Your task to perform on an android device: find snoozed emails in the gmail app Image 0: 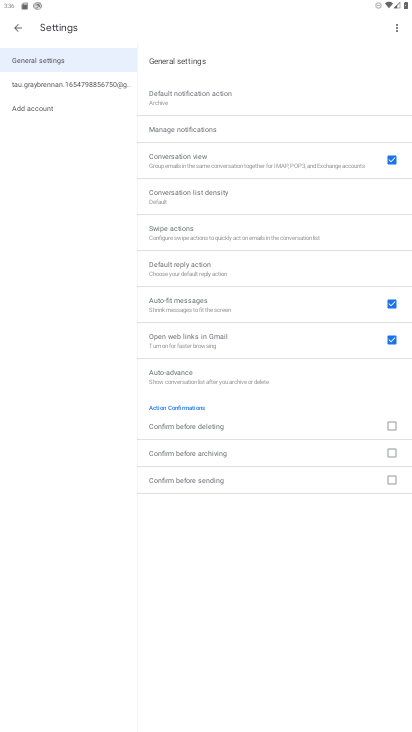
Step 0: press home button
Your task to perform on an android device: find snoozed emails in the gmail app Image 1: 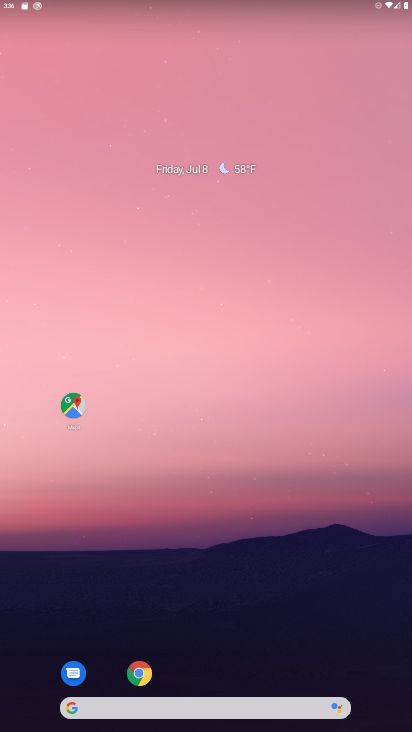
Step 1: drag from (214, 446) to (218, 331)
Your task to perform on an android device: find snoozed emails in the gmail app Image 2: 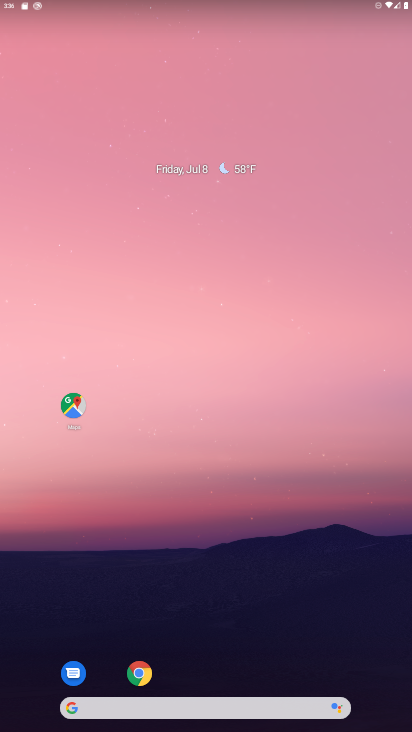
Step 2: drag from (217, 662) to (263, 240)
Your task to perform on an android device: find snoozed emails in the gmail app Image 3: 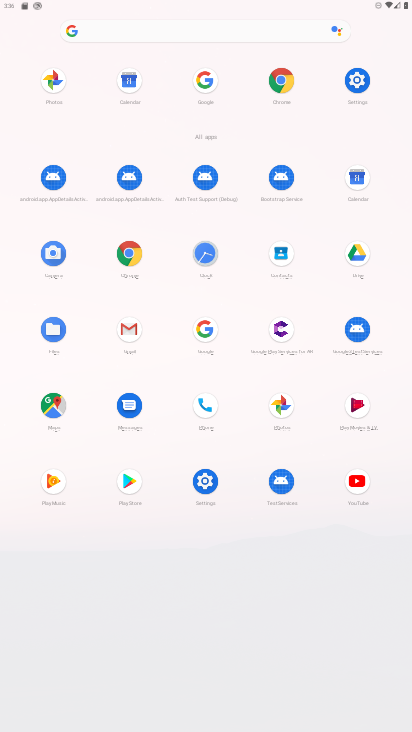
Step 3: click (128, 330)
Your task to perform on an android device: find snoozed emails in the gmail app Image 4: 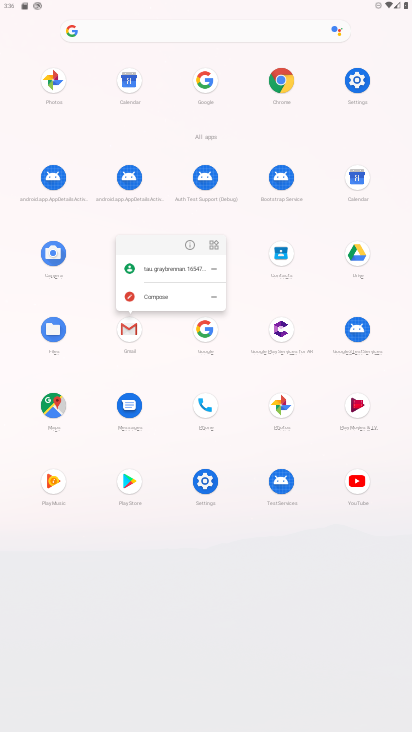
Step 4: click (128, 330)
Your task to perform on an android device: find snoozed emails in the gmail app Image 5: 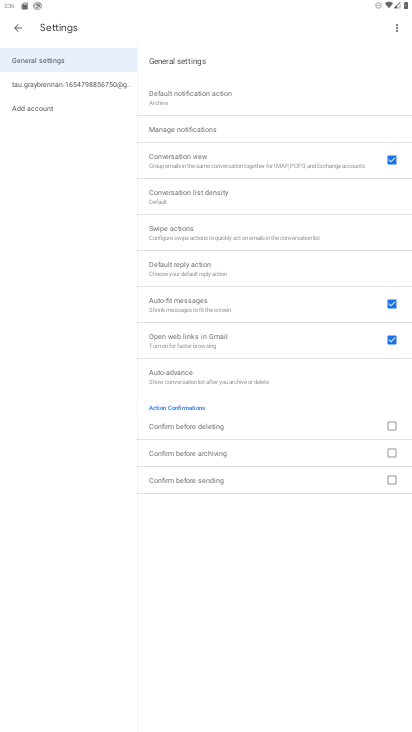
Step 5: click (16, 31)
Your task to perform on an android device: find snoozed emails in the gmail app Image 6: 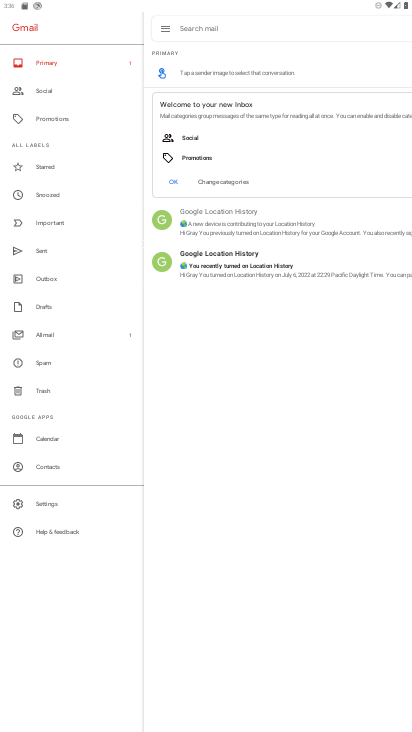
Step 6: click (46, 194)
Your task to perform on an android device: find snoozed emails in the gmail app Image 7: 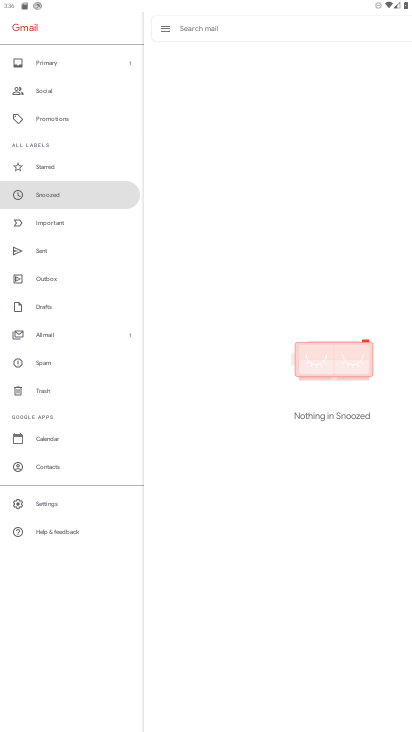
Step 7: task complete